Your task to perform on an android device: change your default location settings in chrome Image 0: 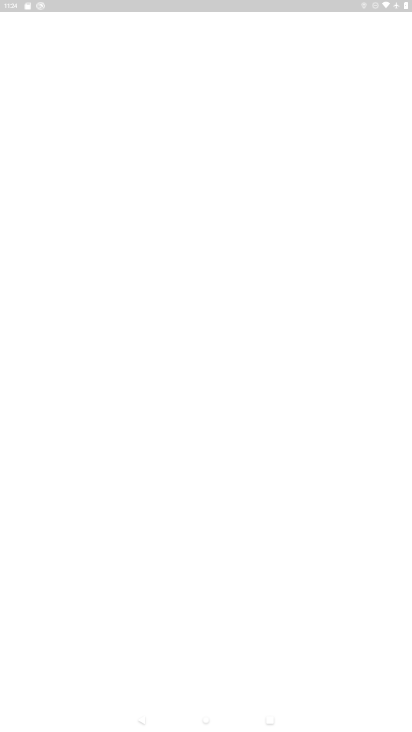
Step 0: press home button
Your task to perform on an android device: change your default location settings in chrome Image 1: 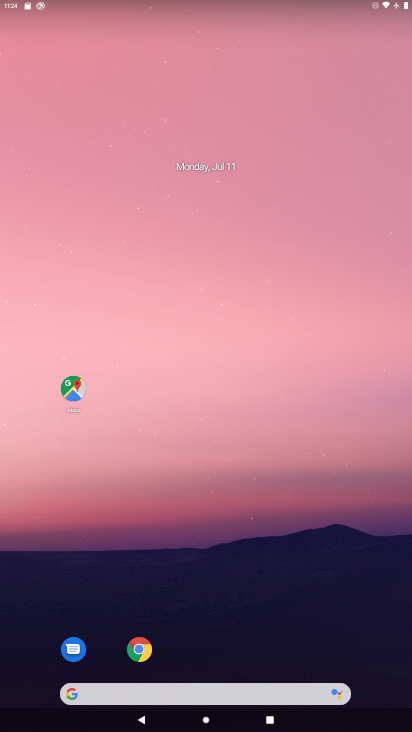
Step 1: drag from (272, 625) to (265, 99)
Your task to perform on an android device: change your default location settings in chrome Image 2: 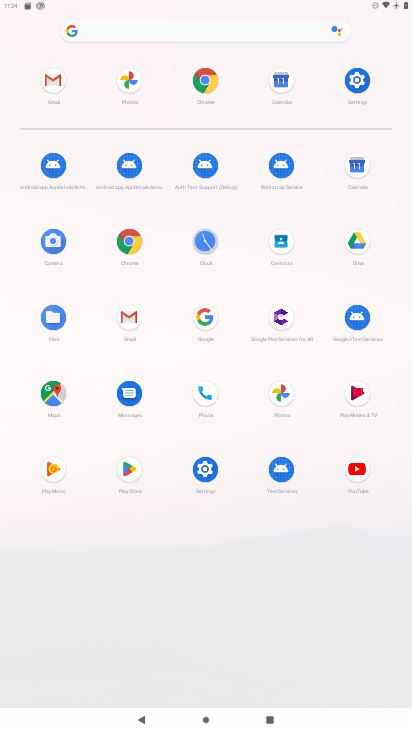
Step 2: click (203, 74)
Your task to perform on an android device: change your default location settings in chrome Image 3: 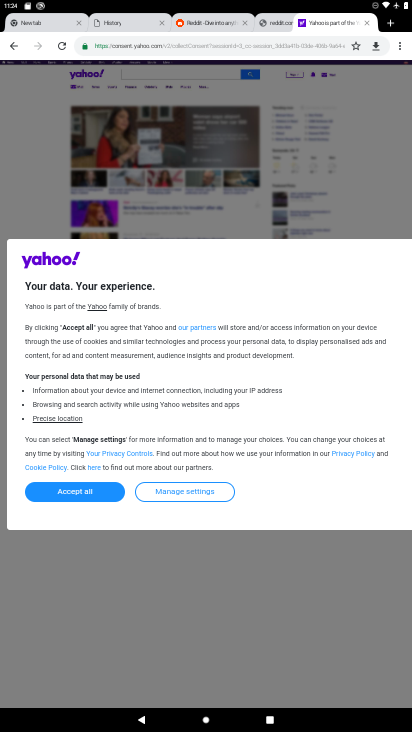
Step 3: drag from (412, 46) to (306, 306)
Your task to perform on an android device: change your default location settings in chrome Image 4: 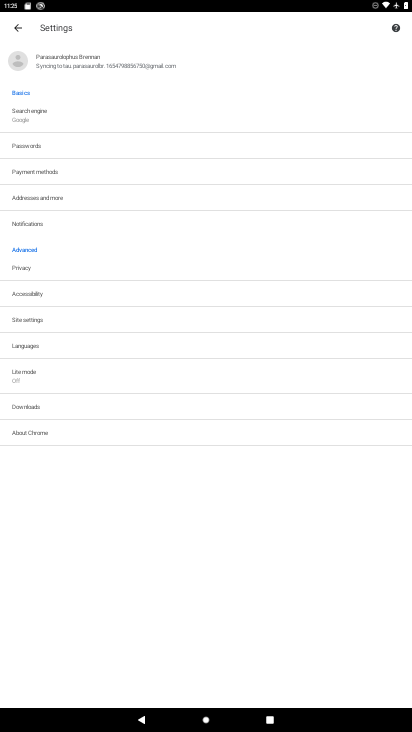
Step 4: click (58, 118)
Your task to perform on an android device: change your default location settings in chrome Image 5: 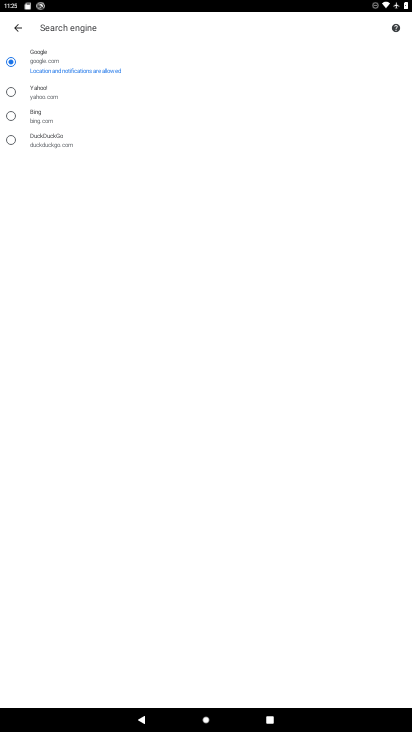
Step 5: click (19, 32)
Your task to perform on an android device: change your default location settings in chrome Image 6: 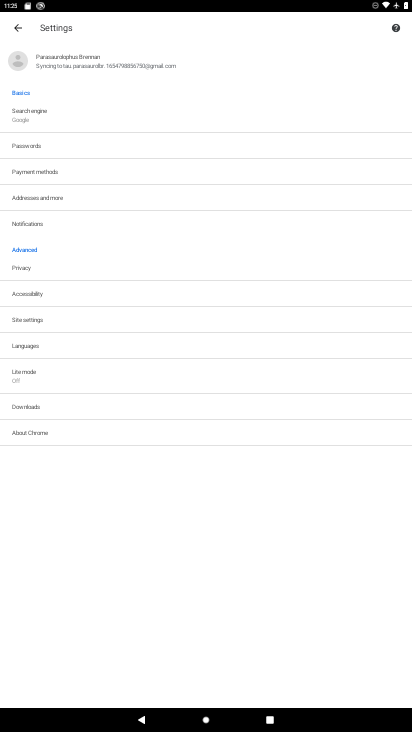
Step 6: click (38, 313)
Your task to perform on an android device: change your default location settings in chrome Image 7: 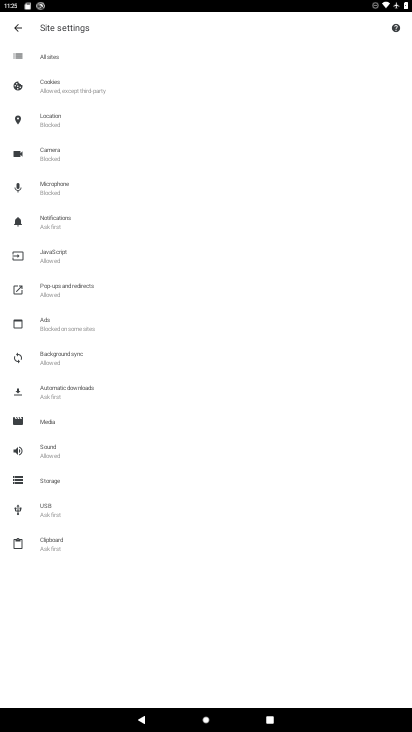
Step 7: click (53, 118)
Your task to perform on an android device: change your default location settings in chrome Image 8: 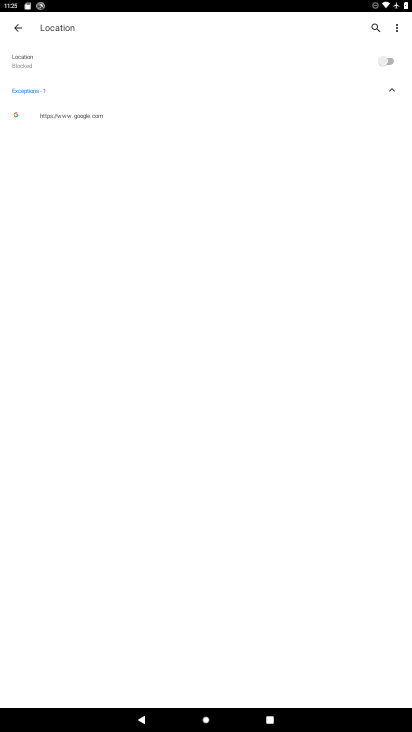
Step 8: click (376, 55)
Your task to perform on an android device: change your default location settings in chrome Image 9: 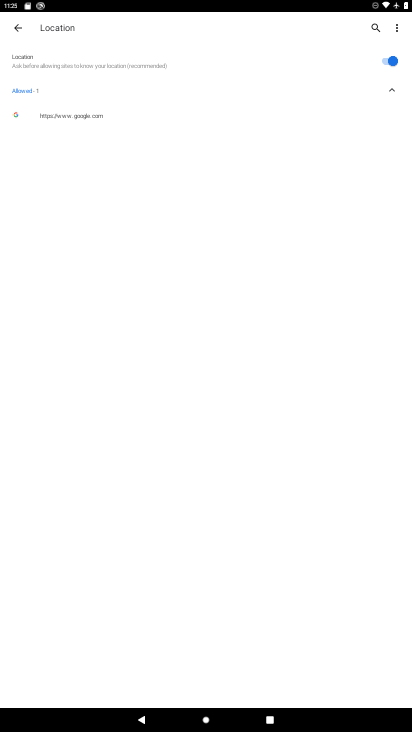
Step 9: task complete